Your task to perform on an android device: Go to eBay Image 0: 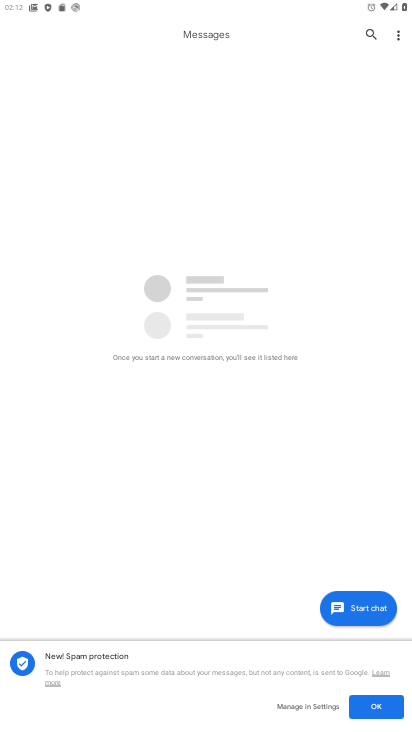
Step 0: press home button
Your task to perform on an android device: Go to eBay Image 1: 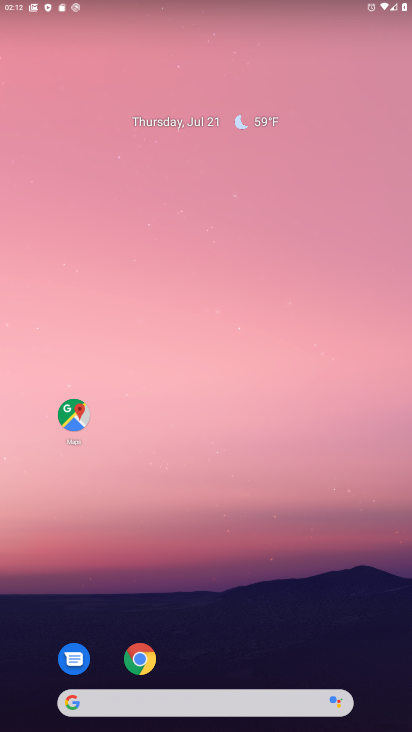
Step 1: drag from (259, 647) to (231, 116)
Your task to perform on an android device: Go to eBay Image 2: 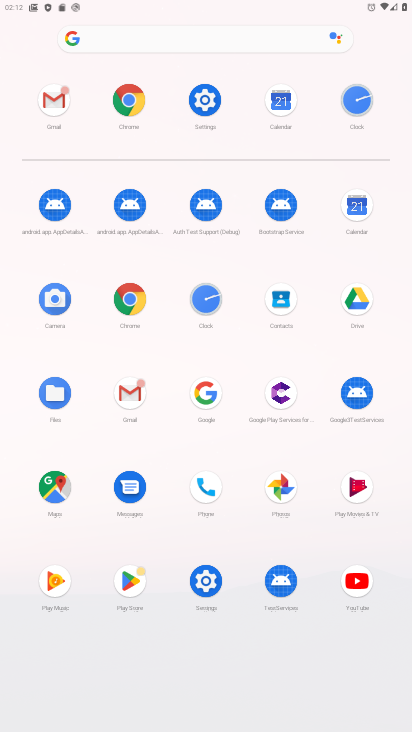
Step 2: click (128, 305)
Your task to perform on an android device: Go to eBay Image 3: 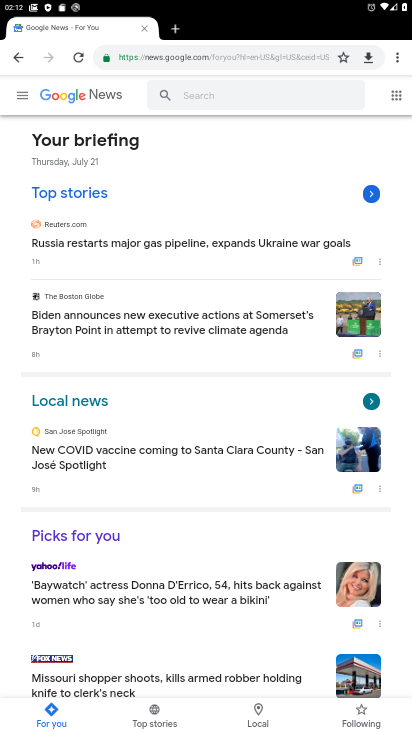
Step 3: click (190, 57)
Your task to perform on an android device: Go to eBay Image 4: 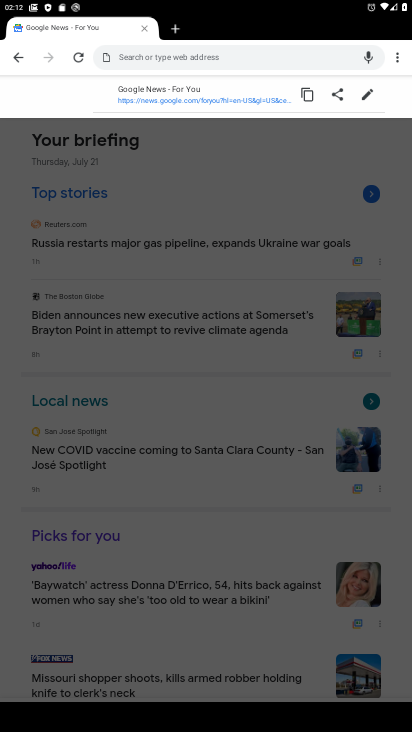
Step 4: type "ebay"
Your task to perform on an android device: Go to eBay Image 5: 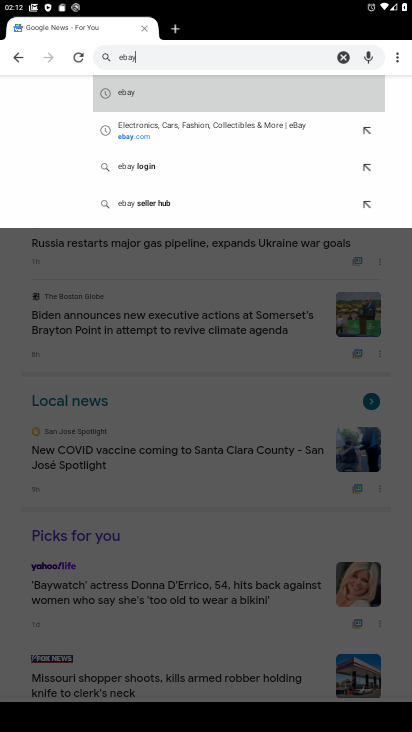
Step 5: click (147, 134)
Your task to perform on an android device: Go to eBay Image 6: 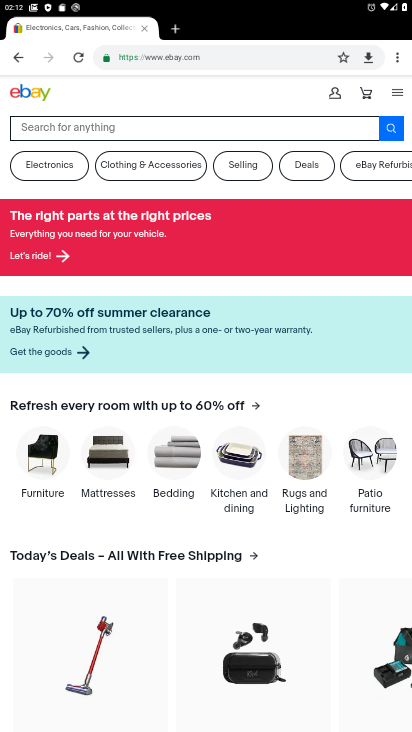
Step 6: task complete